Your task to perform on an android device: change the clock display to digital Image 0: 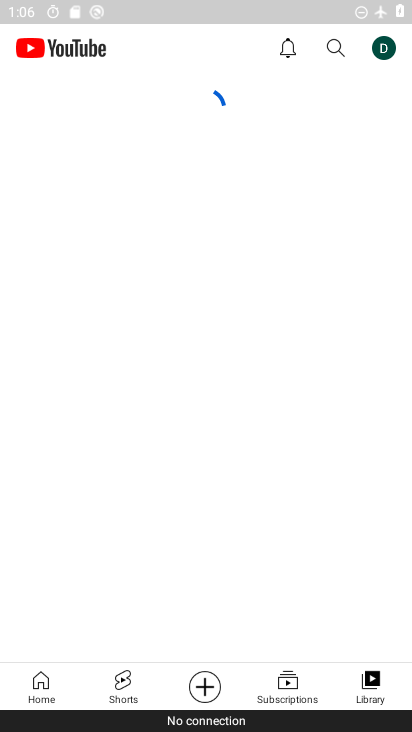
Step 0: press home button
Your task to perform on an android device: change the clock display to digital Image 1: 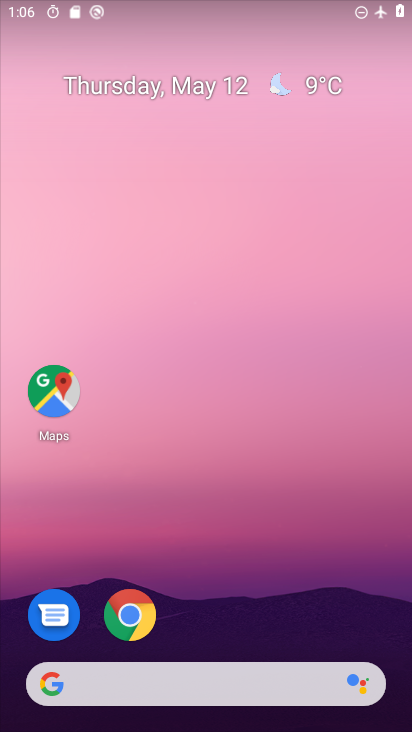
Step 1: drag from (328, 577) to (344, 116)
Your task to perform on an android device: change the clock display to digital Image 2: 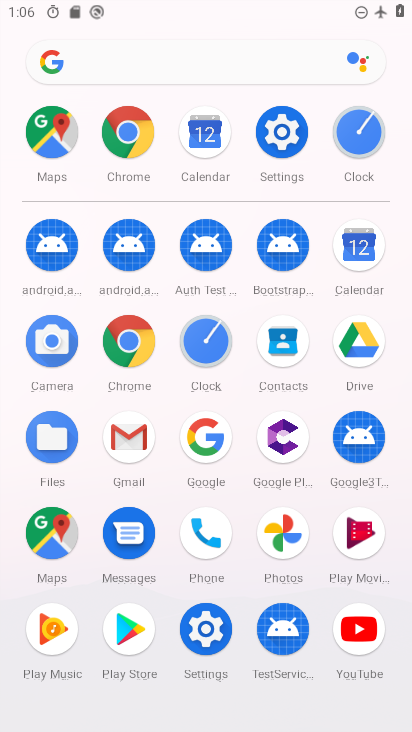
Step 2: click (363, 129)
Your task to perform on an android device: change the clock display to digital Image 3: 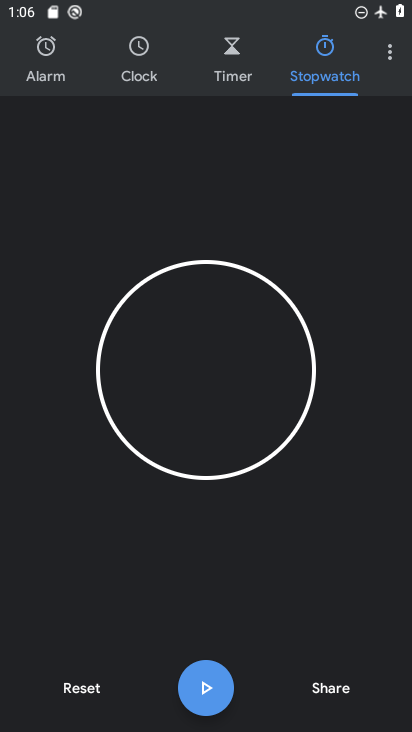
Step 3: drag from (388, 48) to (288, 82)
Your task to perform on an android device: change the clock display to digital Image 4: 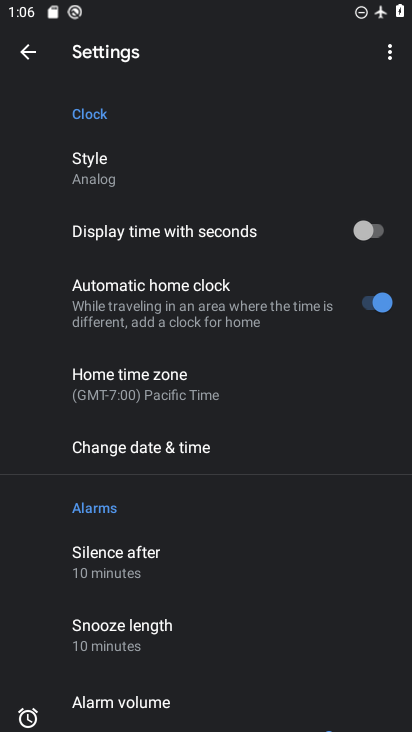
Step 4: click (104, 170)
Your task to perform on an android device: change the clock display to digital Image 5: 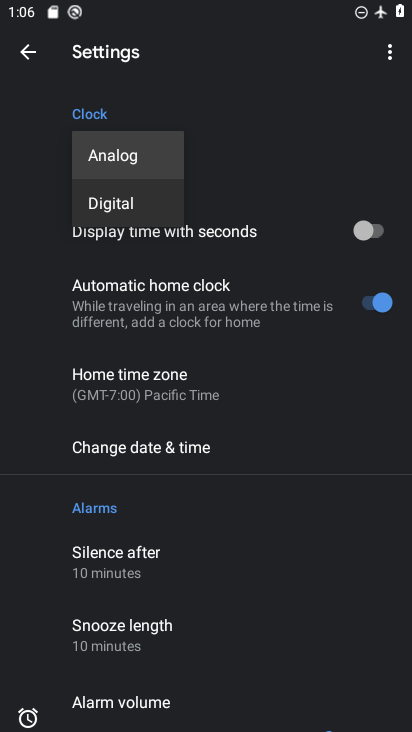
Step 5: click (118, 204)
Your task to perform on an android device: change the clock display to digital Image 6: 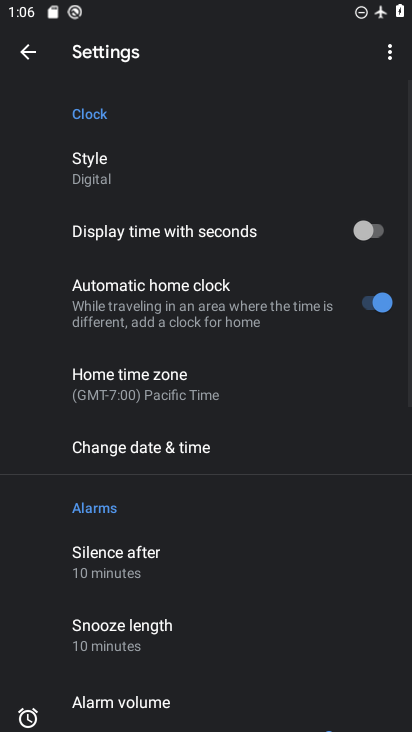
Step 6: task complete